Your task to perform on an android device: turn on wifi Image 0: 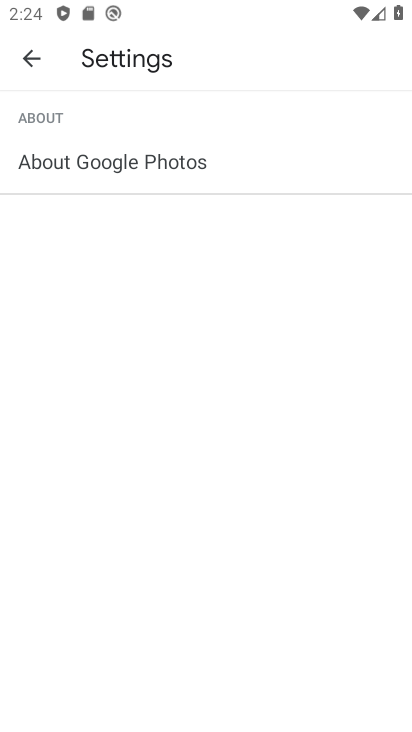
Step 0: press home button
Your task to perform on an android device: turn on wifi Image 1: 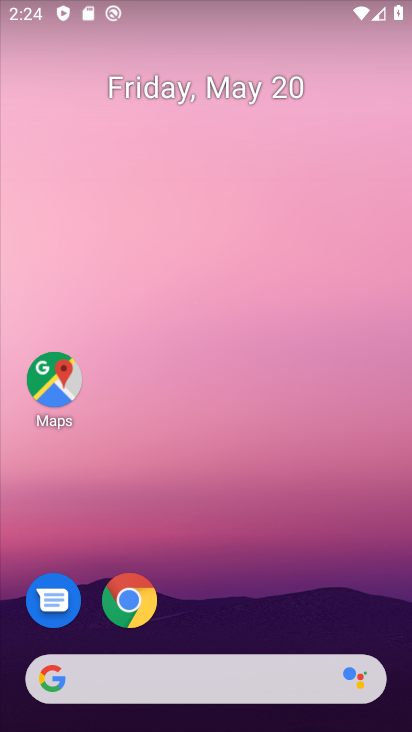
Step 1: drag from (376, 614) to (374, 146)
Your task to perform on an android device: turn on wifi Image 2: 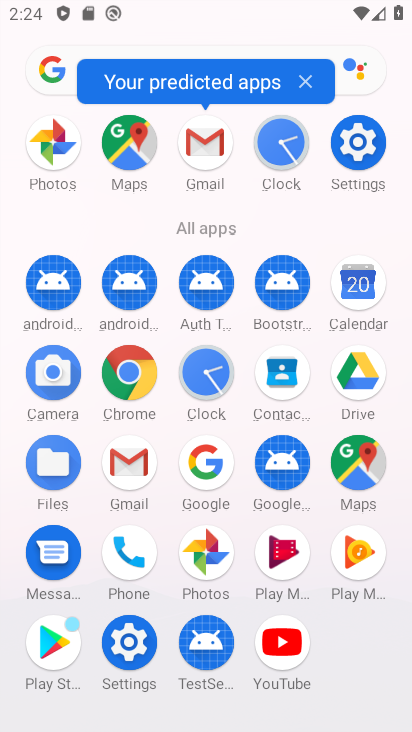
Step 2: click (359, 158)
Your task to perform on an android device: turn on wifi Image 3: 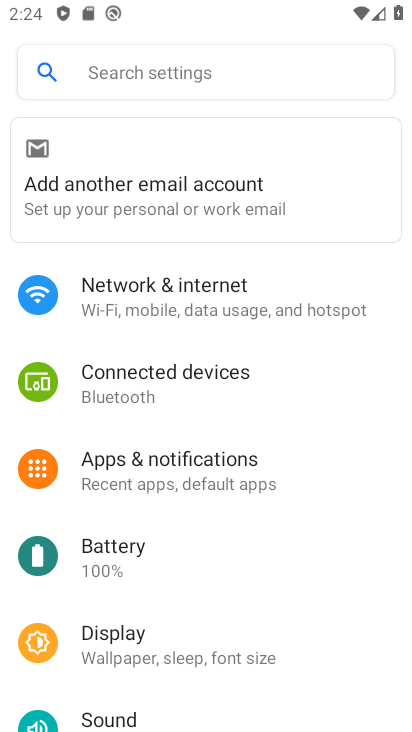
Step 3: click (325, 309)
Your task to perform on an android device: turn on wifi Image 4: 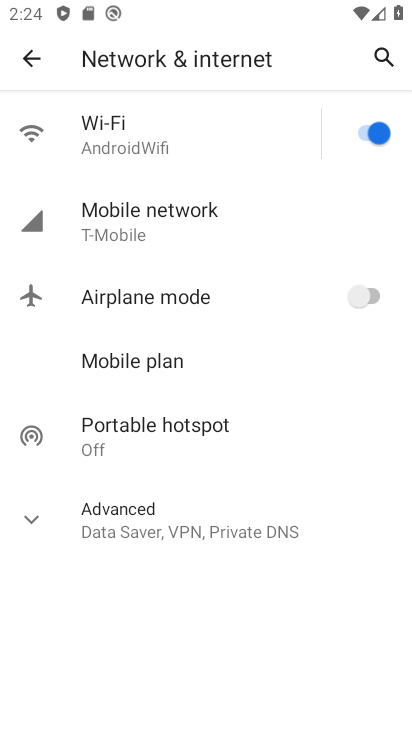
Step 4: task complete